Your task to perform on an android device: Turn off the flashlight Image 0: 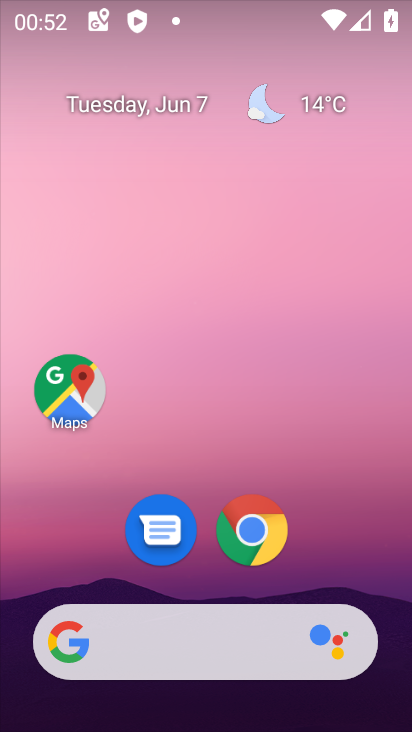
Step 0: drag from (294, 537) to (274, 165)
Your task to perform on an android device: Turn off the flashlight Image 1: 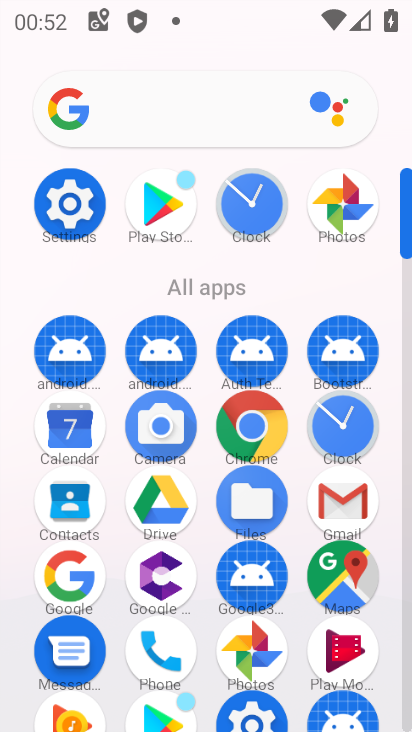
Step 1: click (81, 190)
Your task to perform on an android device: Turn off the flashlight Image 2: 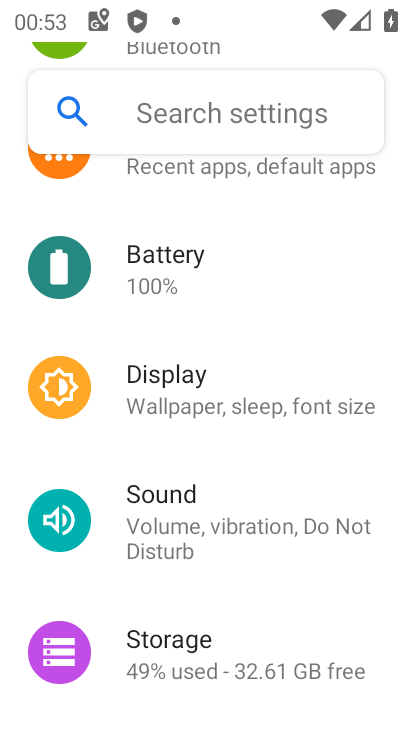
Step 2: task complete